Your task to perform on an android device: turn off picture-in-picture Image 0: 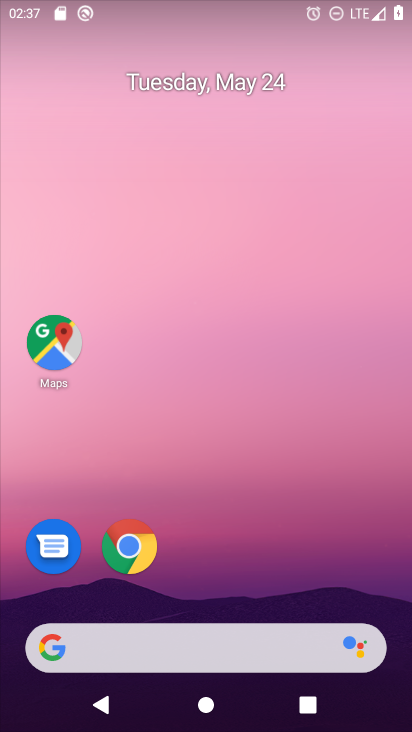
Step 0: drag from (320, 639) to (237, 64)
Your task to perform on an android device: turn off picture-in-picture Image 1: 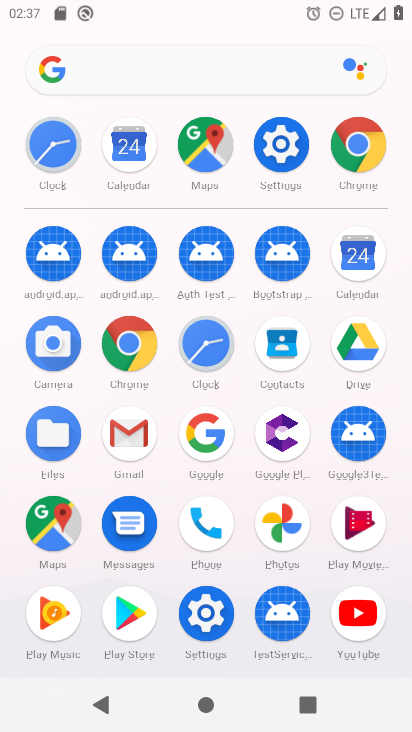
Step 1: click (291, 143)
Your task to perform on an android device: turn off picture-in-picture Image 2: 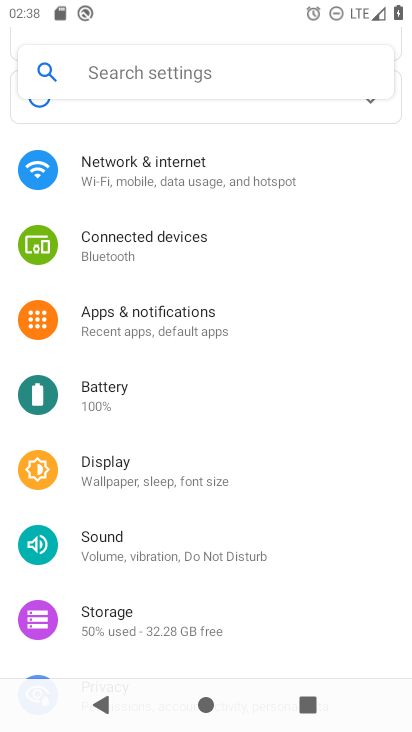
Step 2: drag from (252, 633) to (244, 96)
Your task to perform on an android device: turn off picture-in-picture Image 3: 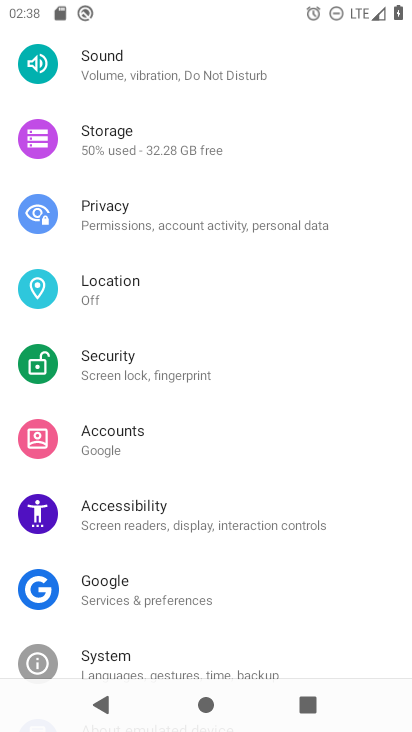
Step 3: drag from (209, 113) to (211, 715)
Your task to perform on an android device: turn off picture-in-picture Image 4: 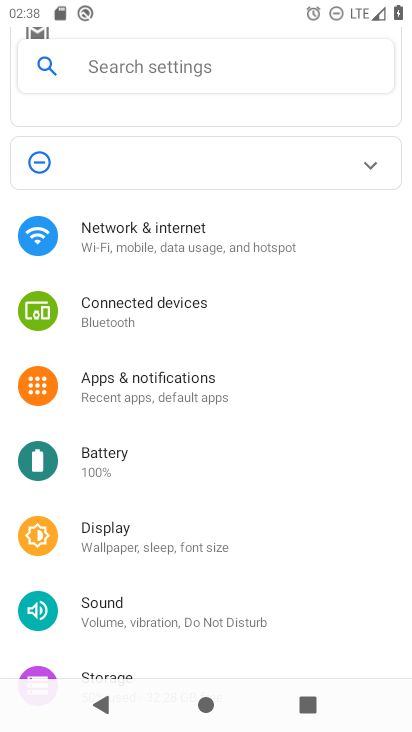
Step 4: click (91, 396)
Your task to perform on an android device: turn off picture-in-picture Image 5: 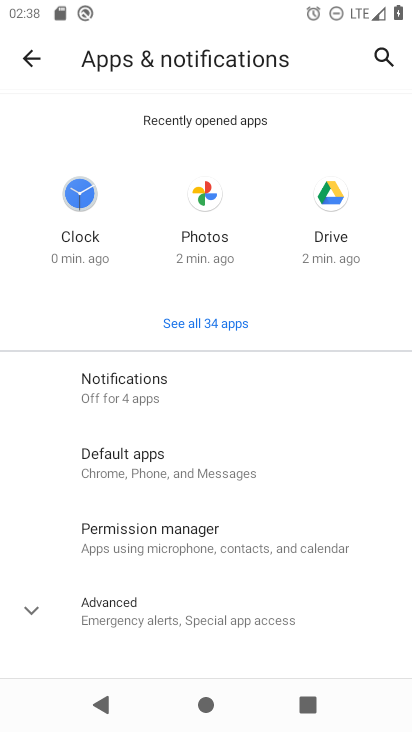
Step 5: click (166, 606)
Your task to perform on an android device: turn off picture-in-picture Image 6: 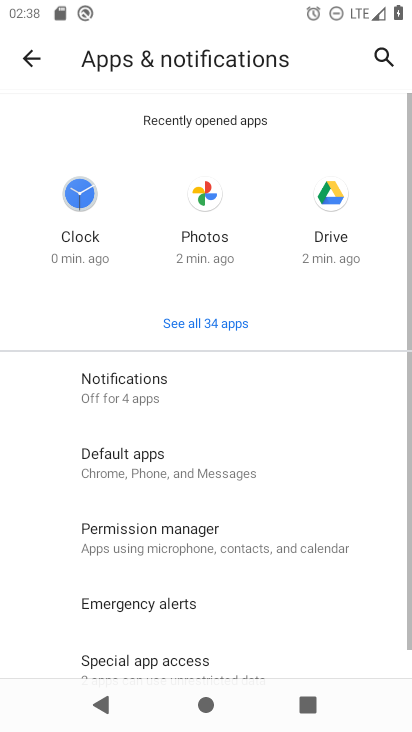
Step 6: drag from (184, 660) to (232, 250)
Your task to perform on an android device: turn off picture-in-picture Image 7: 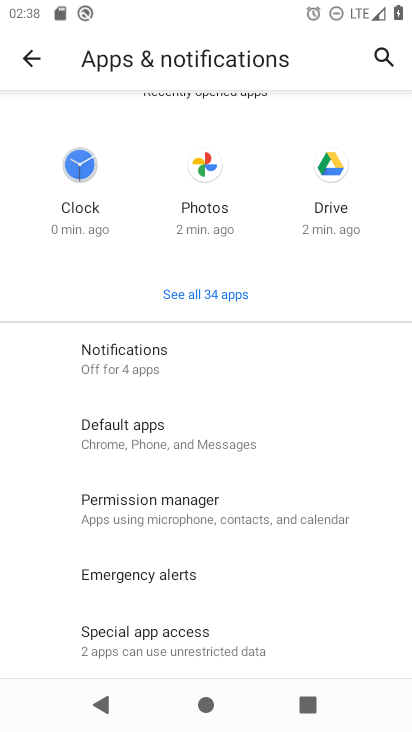
Step 7: click (214, 659)
Your task to perform on an android device: turn off picture-in-picture Image 8: 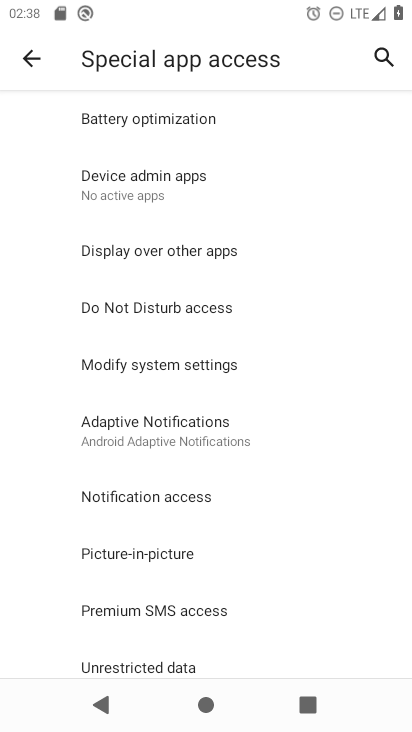
Step 8: click (167, 557)
Your task to perform on an android device: turn off picture-in-picture Image 9: 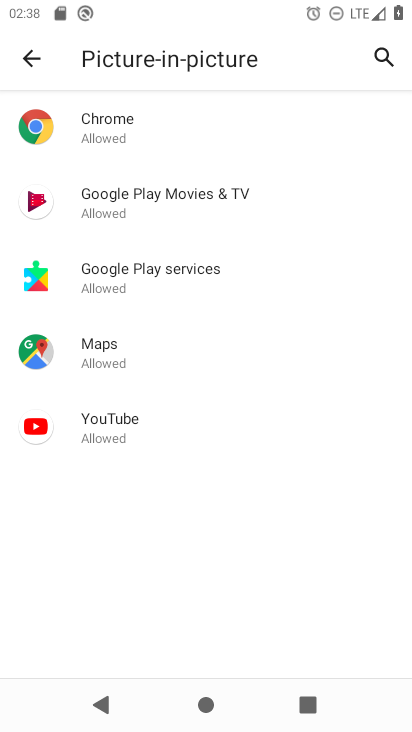
Step 9: click (139, 107)
Your task to perform on an android device: turn off picture-in-picture Image 10: 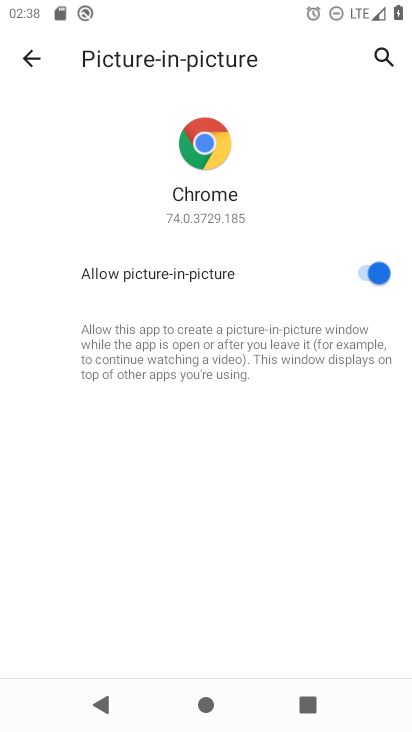
Step 10: click (366, 266)
Your task to perform on an android device: turn off picture-in-picture Image 11: 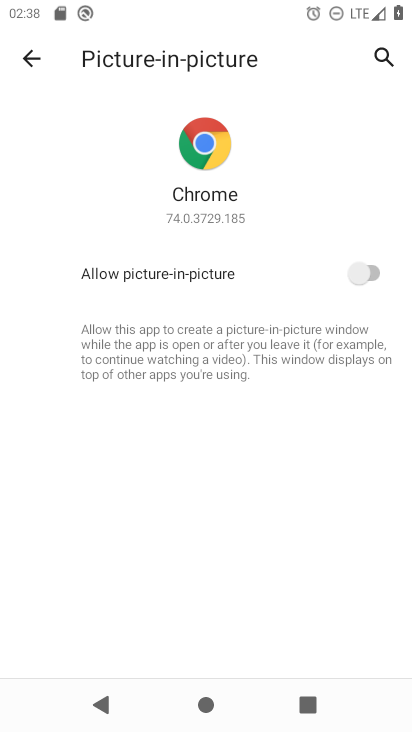
Step 11: press back button
Your task to perform on an android device: turn off picture-in-picture Image 12: 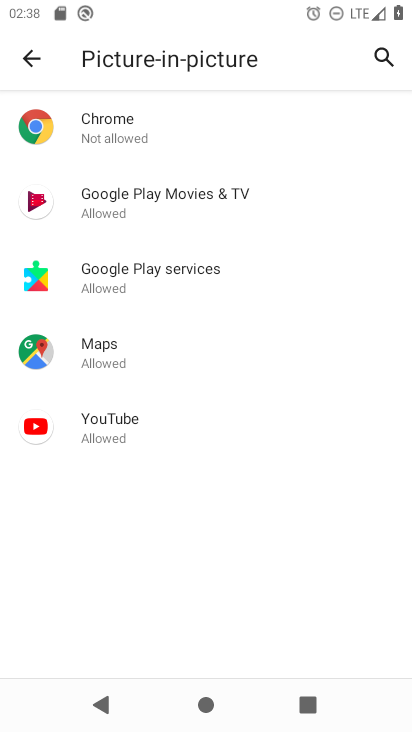
Step 12: click (155, 214)
Your task to perform on an android device: turn off picture-in-picture Image 13: 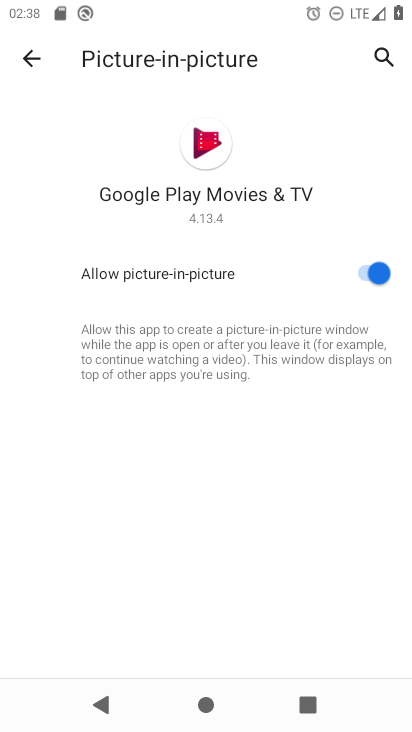
Step 13: click (366, 269)
Your task to perform on an android device: turn off picture-in-picture Image 14: 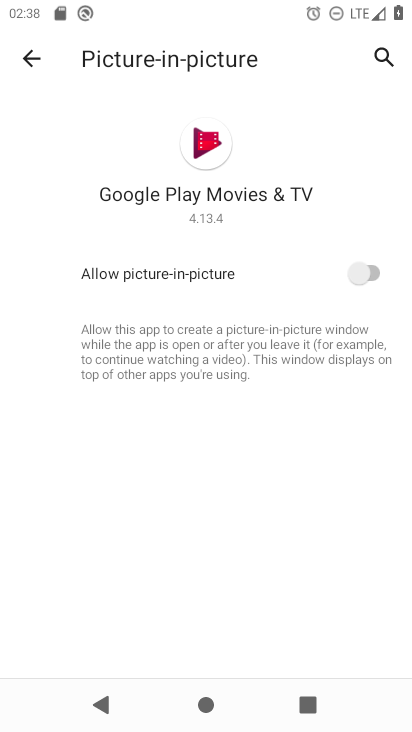
Step 14: press back button
Your task to perform on an android device: turn off picture-in-picture Image 15: 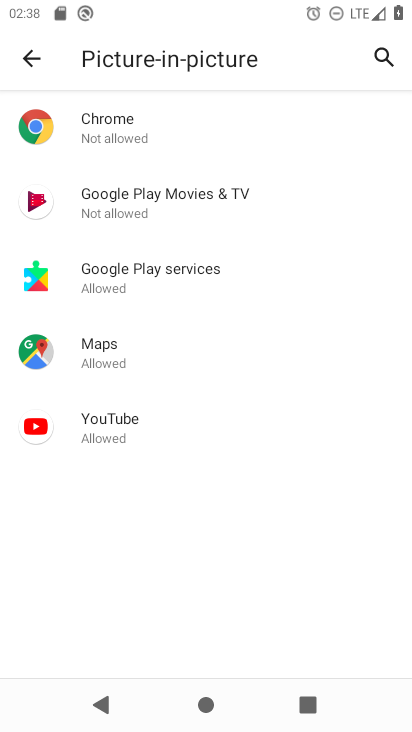
Step 15: click (110, 291)
Your task to perform on an android device: turn off picture-in-picture Image 16: 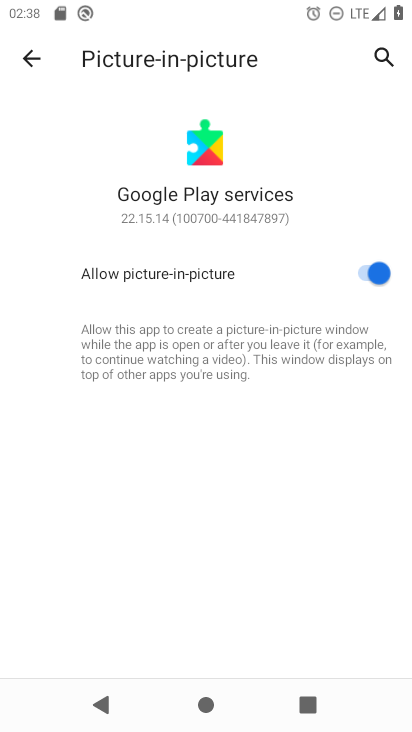
Step 16: click (369, 270)
Your task to perform on an android device: turn off picture-in-picture Image 17: 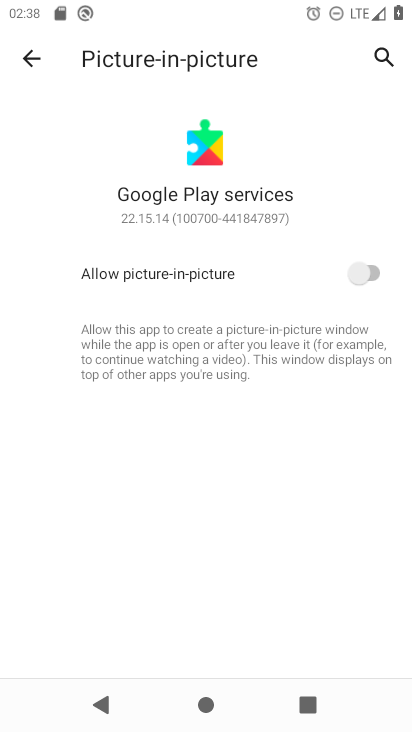
Step 17: press back button
Your task to perform on an android device: turn off picture-in-picture Image 18: 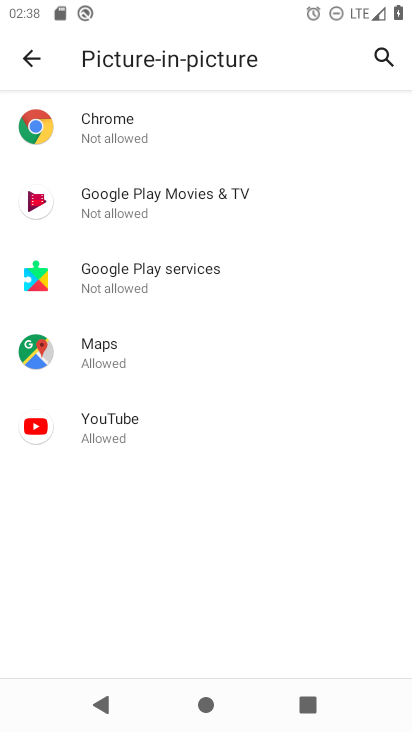
Step 18: click (181, 356)
Your task to perform on an android device: turn off picture-in-picture Image 19: 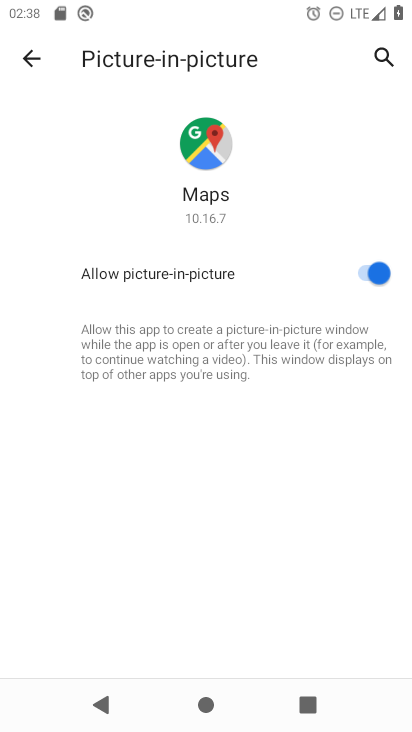
Step 19: click (369, 273)
Your task to perform on an android device: turn off picture-in-picture Image 20: 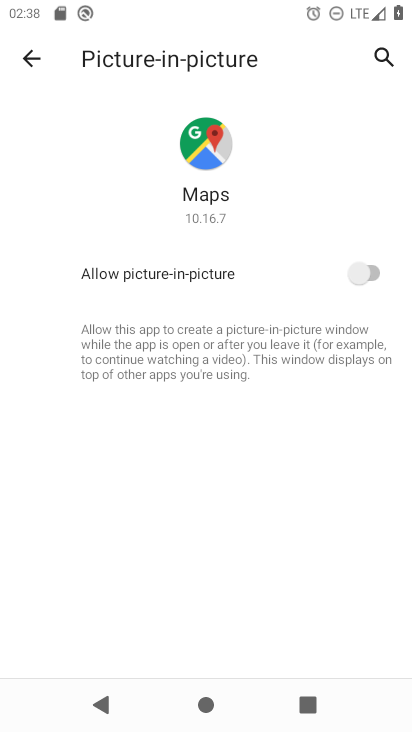
Step 20: press back button
Your task to perform on an android device: turn off picture-in-picture Image 21: 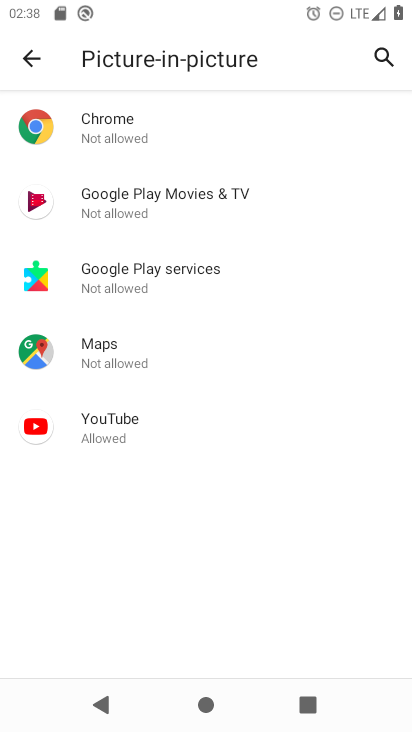
Step 21: click (162, 429)
Your task to perform on an android device: turn off picture-in-picture Image 22: 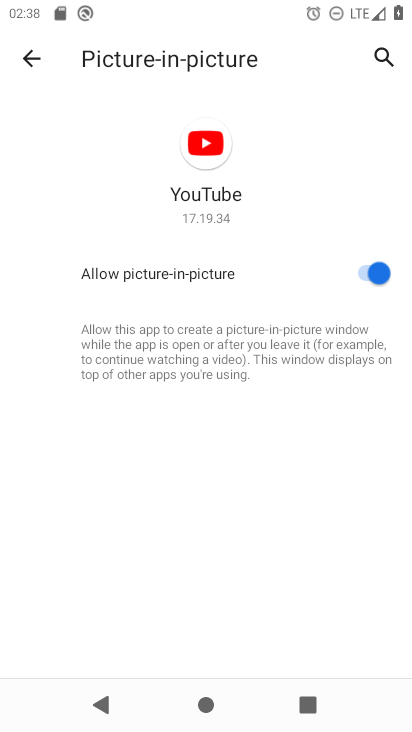
Step 22: click (374, 275)
Your task to perform on an android device: turn off picture-in-picture Image 23: 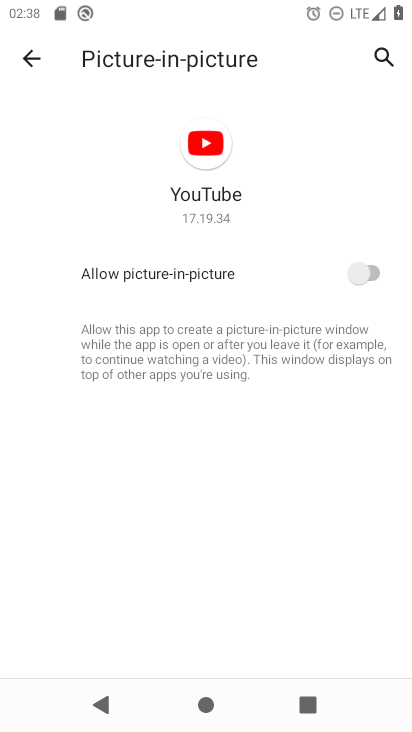
Step 23: task complete